Your task to perform on an android device: Show me popular games on the Play Store Image 0: 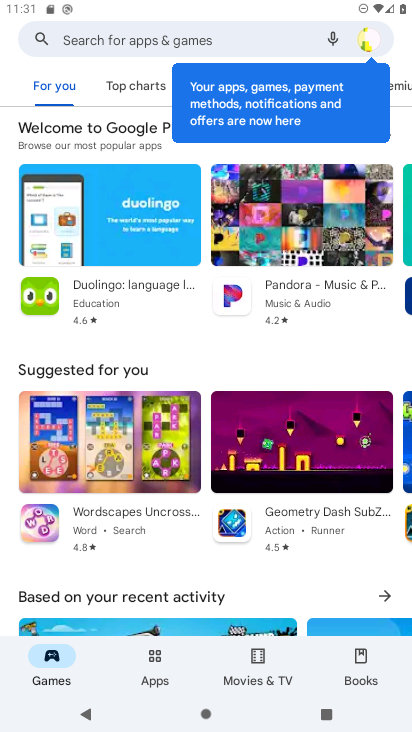
Step 0: press home button
Your task to perform on an android device: Show me popular games on the Play Store Image 1: 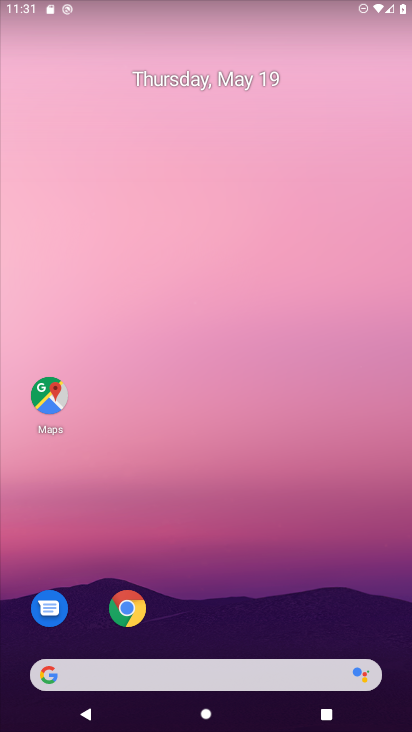
Step 1: drag from (318, 718) to (334, 275)
Your task to perform on an android device: Show me popular games on the Play Store Image 2: 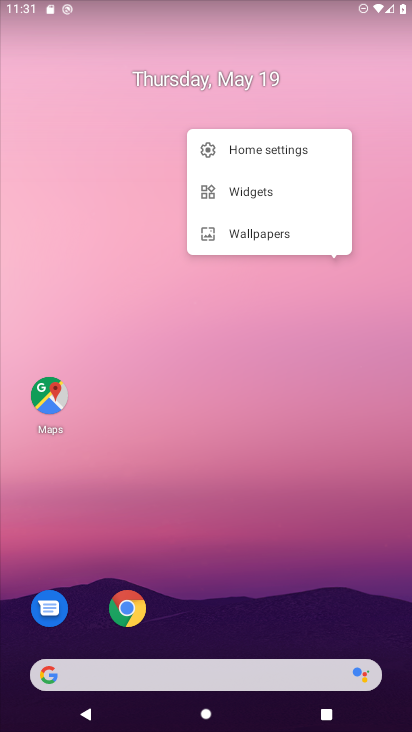
Step 2: drag from (200, 583) to (128, 61)
Your task to perform on an android device: Show me popular games on the Play Store Image 3: 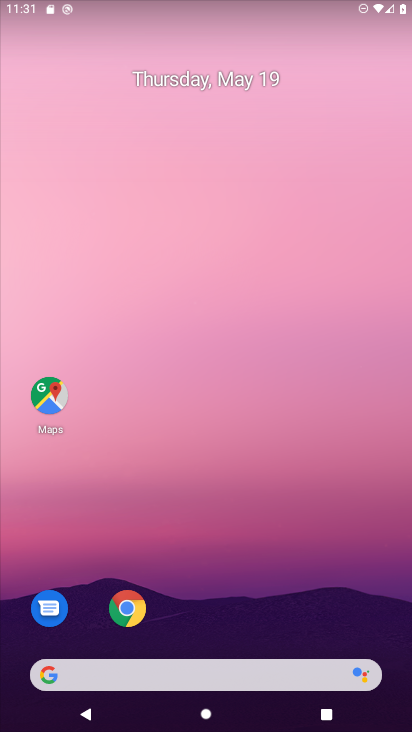
Step 3: drag from (282, 634) to (245, 434)
Your task to perform on an android device: Show me popular games on the Play Store Image 4: 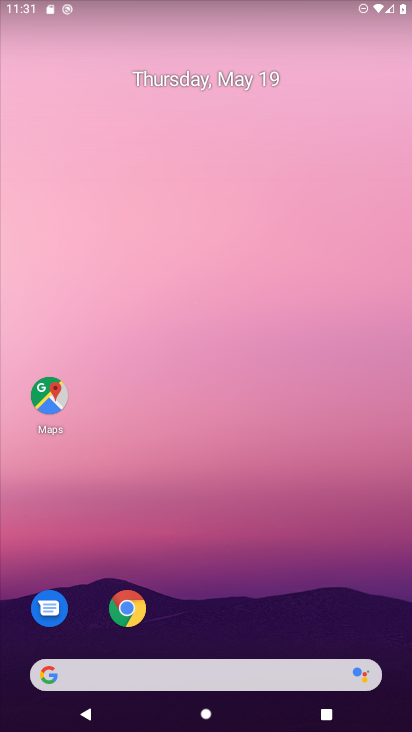
Step 4: drag from (259, 606) to (187, 78)
Your task to perform on an android device: Show me popular games on the Play Store Image 5: 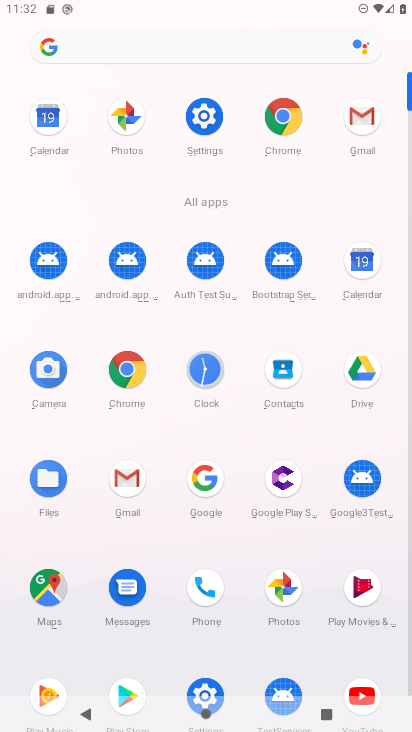
Step 5: click (133, 687)
Your task to perform on an android device: Show me popular games on the Play Store Image 6: 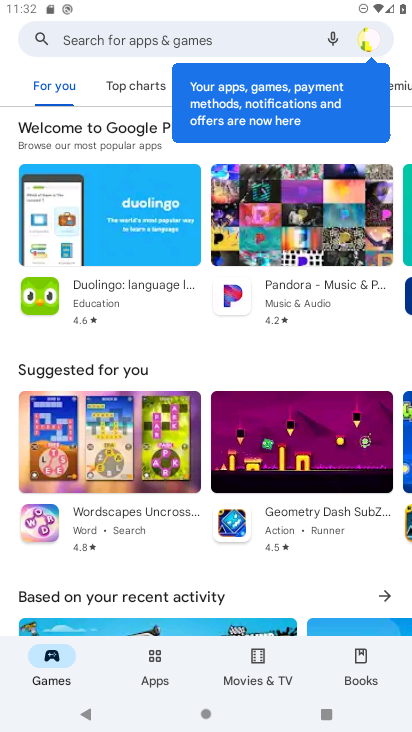
Step 6: click (134, 42)
Your task to perform on an android device: Show me popular games on the Play Store Image 7: 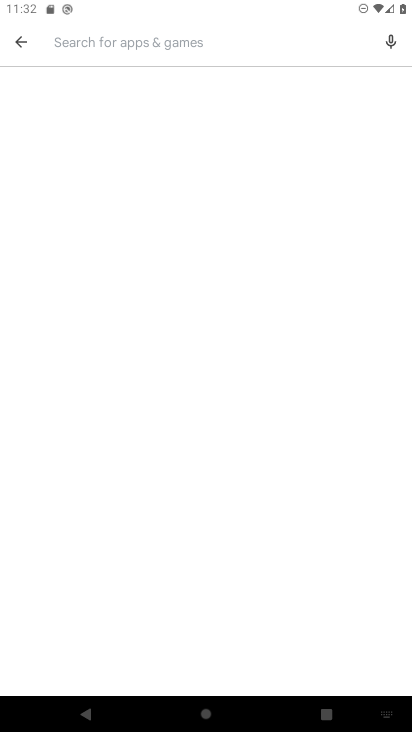
Step 7: type "popular games"
Your task to perform on an android device: Show me popular games on the Play Store Image 8: 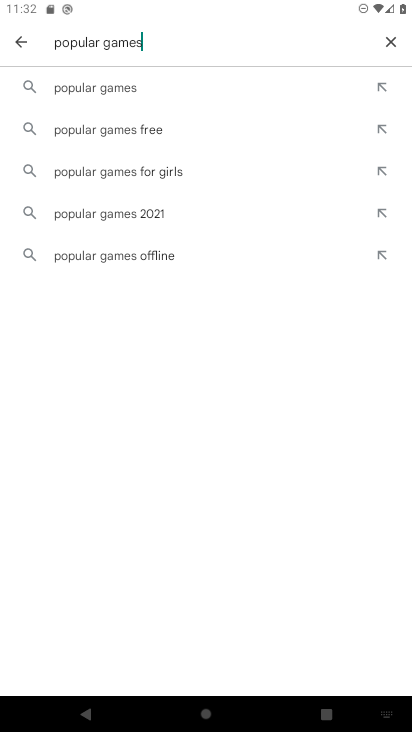
Step 8: click (43, 110)
Your task to perform on an android device: Show me popular games on the Play Store Image 9: 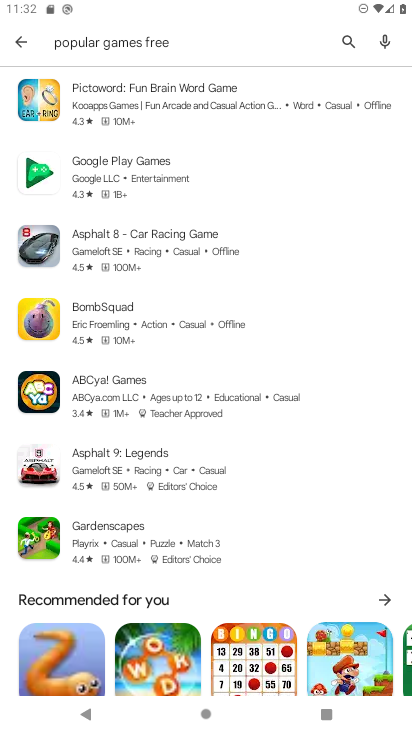
Step 9: task complete